Your task to perform on an android device: open device folders in google photos Image 0: 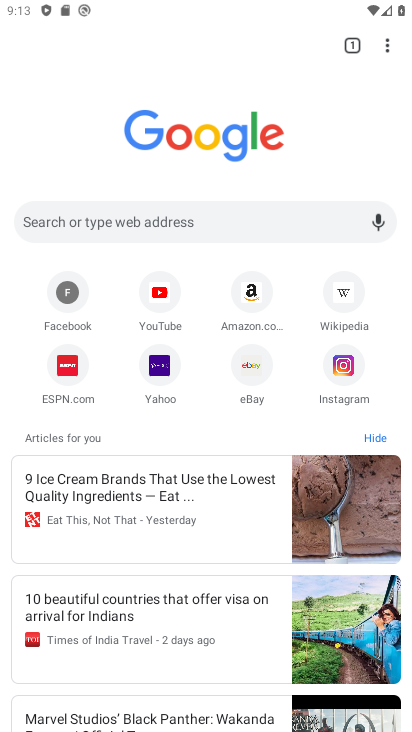
Step 0: press home button
Your task to perform on an android device: open device folders in google photos Image 1: 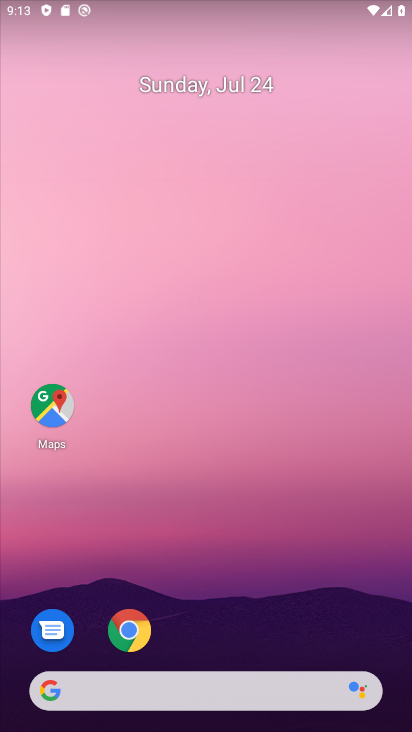
Step 1: drag from (225, 650) to (219, 200)
Your task to perform on an android device: open device folders in google photos Image 2: 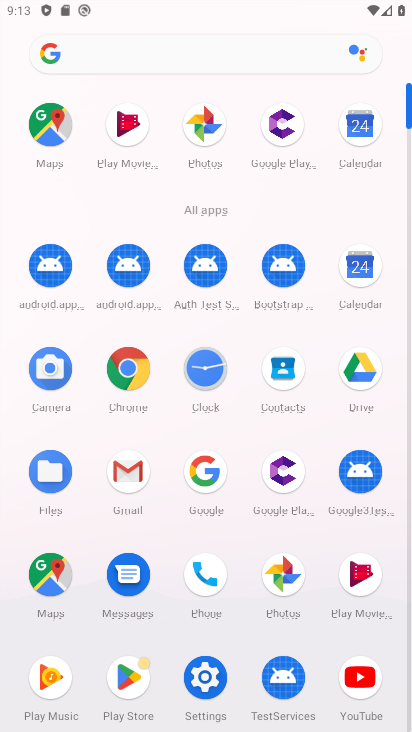
Step 2: click (219, 200)
Your task to perform on an android device: open device folders in google photos Image 3: 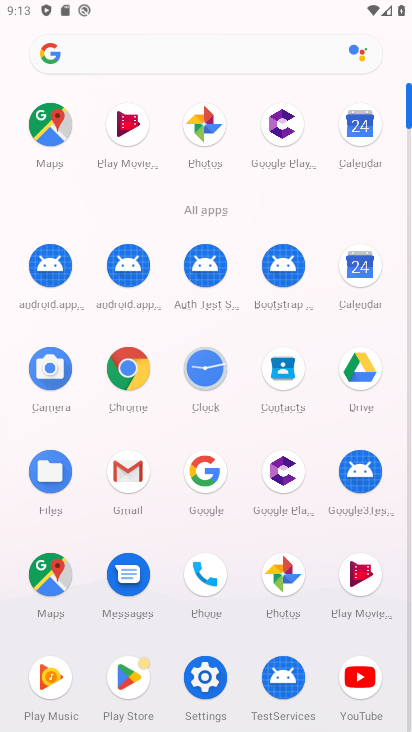
Step 3: click (202, 134)
Your task to perform on an android device: open device folders in google photos Image 4: 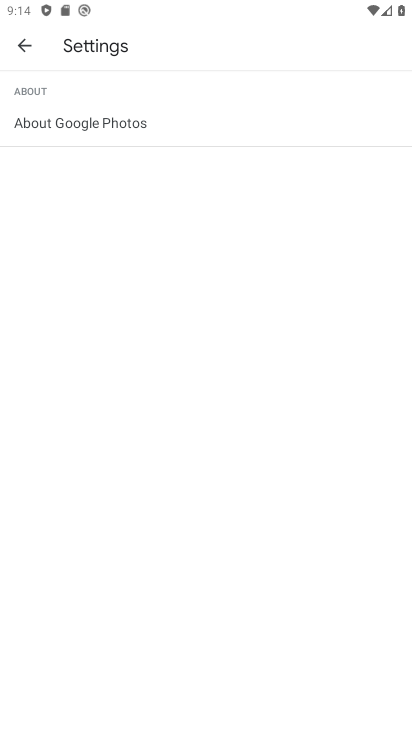
Step 4: click (22, 50)
Your task to perform on an android device: open device folders in google photos Image 5: 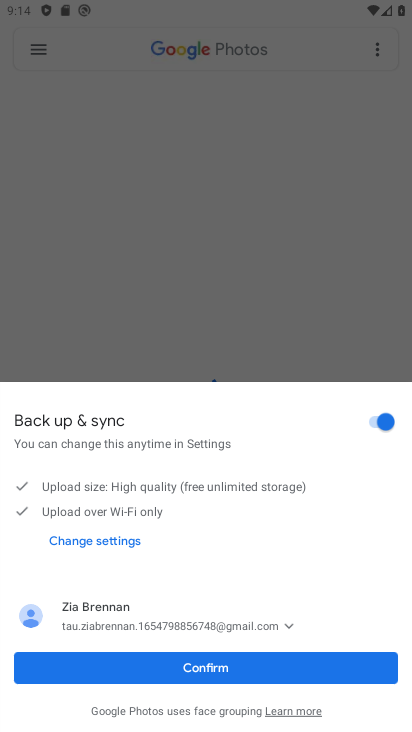
Step 5: click (41, 40)
Your task to perform on an android device: open device folders in google photos Image 6: 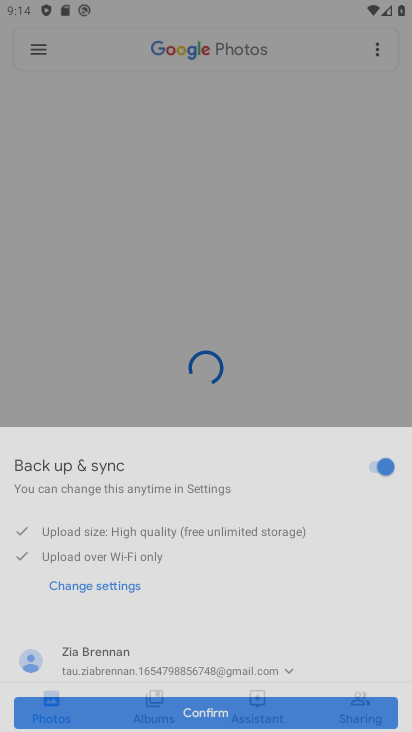
Step 6: click (41, 40)
Your task to perform on an android device: open device folders in google photos Image 7: 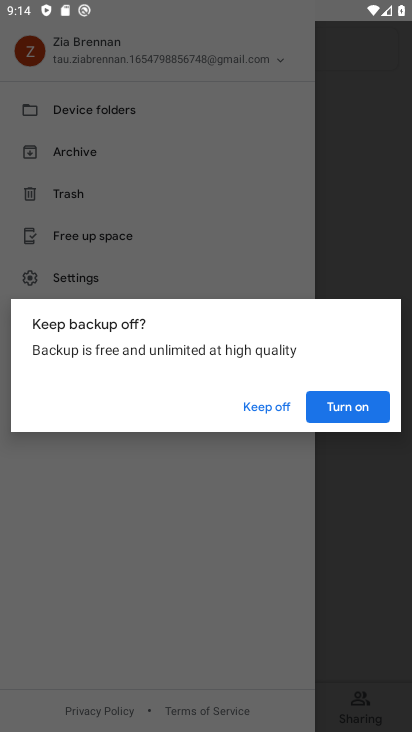
Step 7: click (381, 414)
Your task to perform on an android device: open device folders in google photos Image 8: 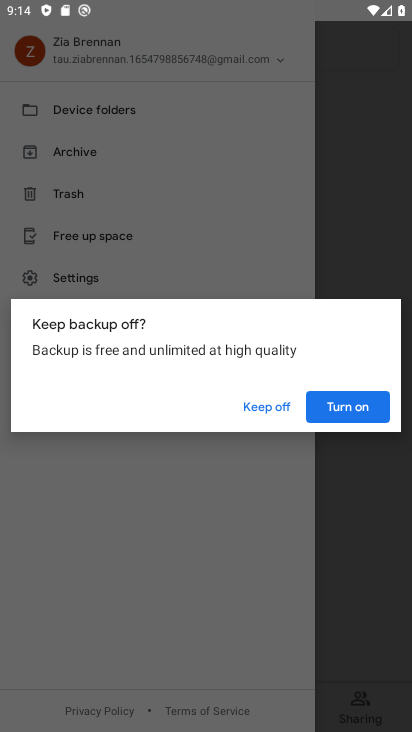
Step 8: click (381, 414)
Your task to perform on an android device: open device folders in google photos Image 9: 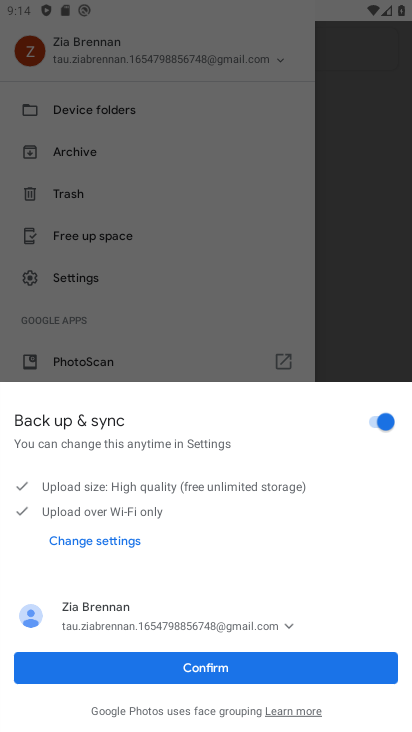
Step 9: click (291, 674)
Your task to perform on an android device: open device folders in google photos Image 10: 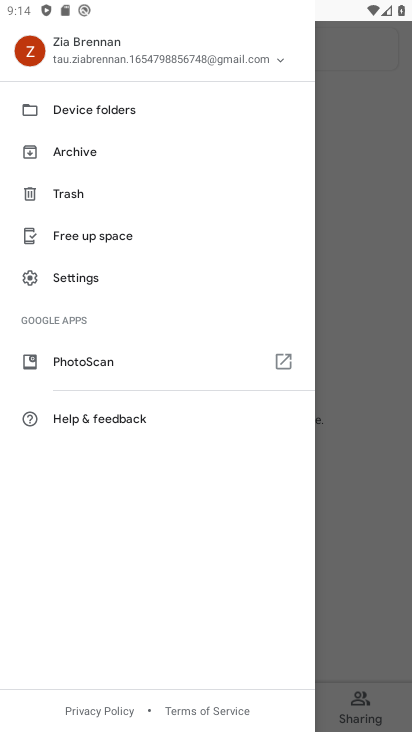
Step 10: click (98, 100)
Your task to perform on an android device: open device folders in google photos Image 11: 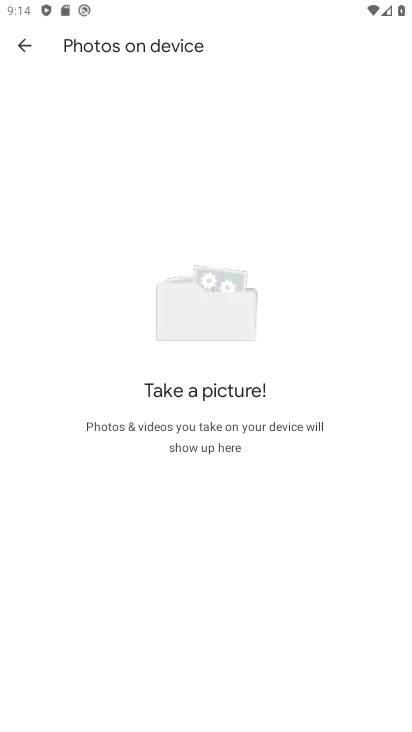
Step 11: task complete